Your task to perform on an android device: Turn off the flashlight Image 0: 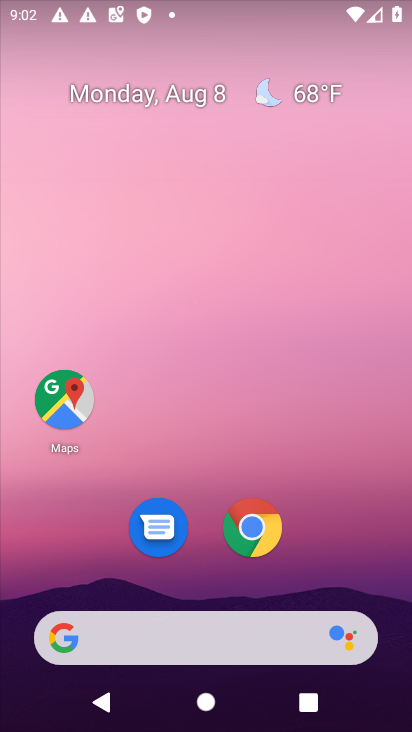
Step 0: drag from (391, 707) to (316, 179)
Your task to perform on an android device: Turn off the flashlight Image 1: 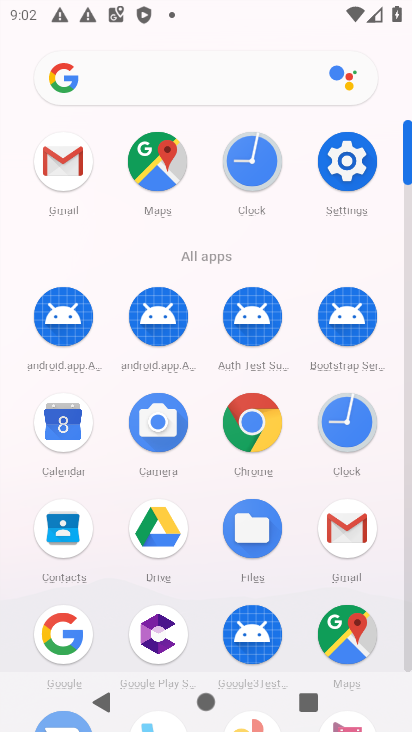
Step 1: click (343, 173)
Your task to perform on an android device: Turn off the flashlight Image 2: 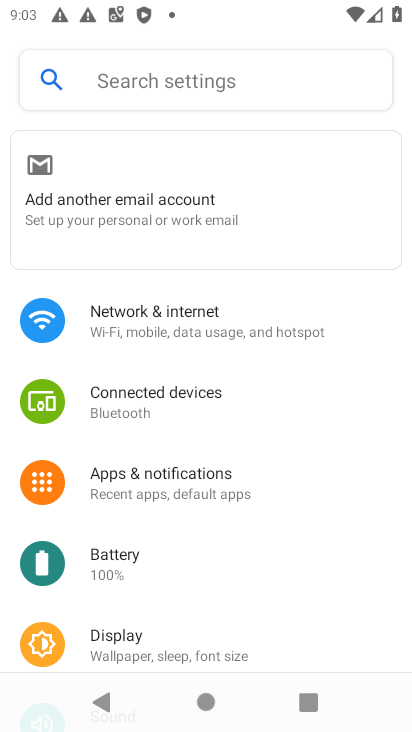
Step 2: click (109, 636)
Your task to perform on an android device: Turn off the flashlight Image 3: 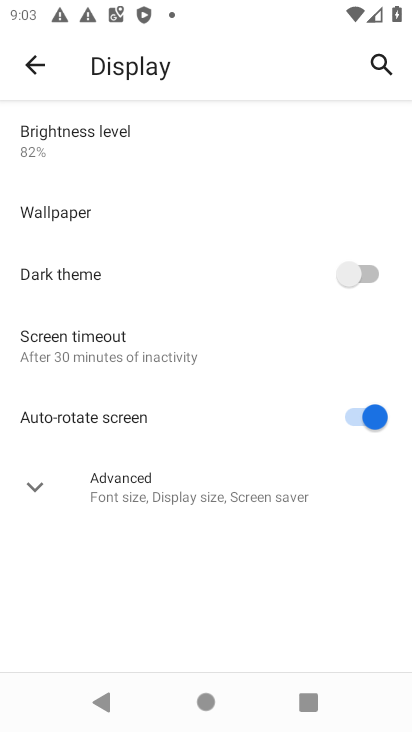
Step 3: task complete